Your task to perform on an android device: Do I have any events this weekend? Image 0: 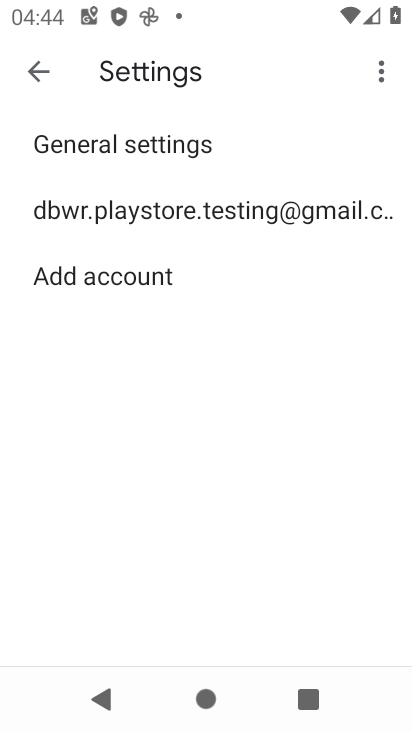
Step 0: press home button
Your task to perform on an android device: Do I have any events this weekend? Image 1: 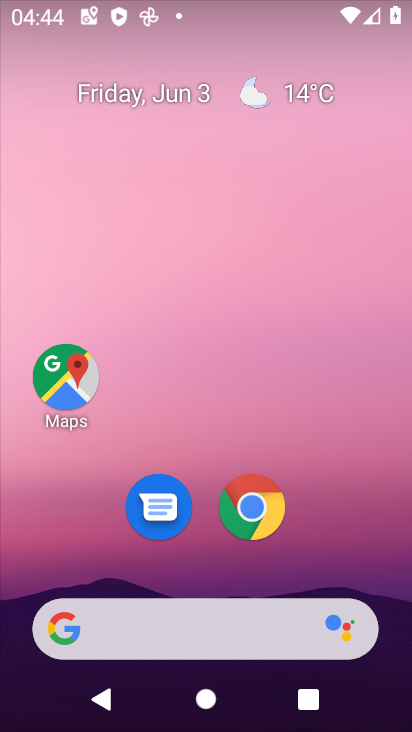
Step 1: drag from (342, 452) to (334, 122)
Your task to perform on an android device: Do I have any events this weekend? Image 2: 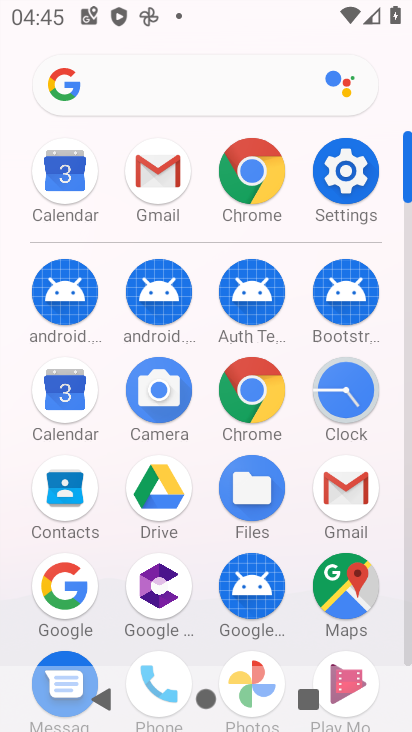
Step 2: click (63, 399)
Your task to perform on an android device: Do I have any events this weekend? Image 3: 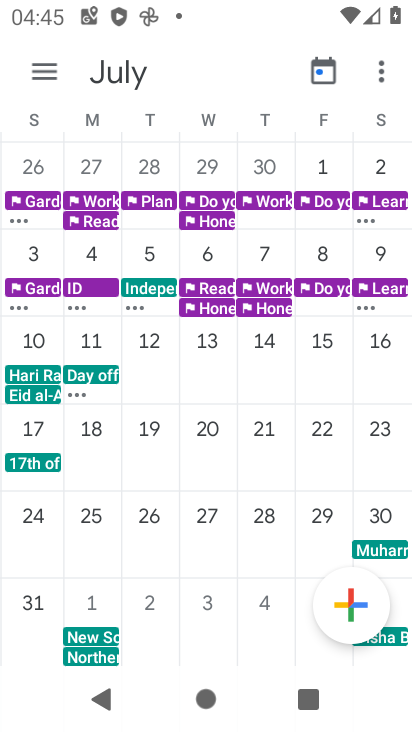
Step 3: drag from (35, 249) to (356, 249)
Your task to perform on an android device: Do I have any events this weekend? Image 4: 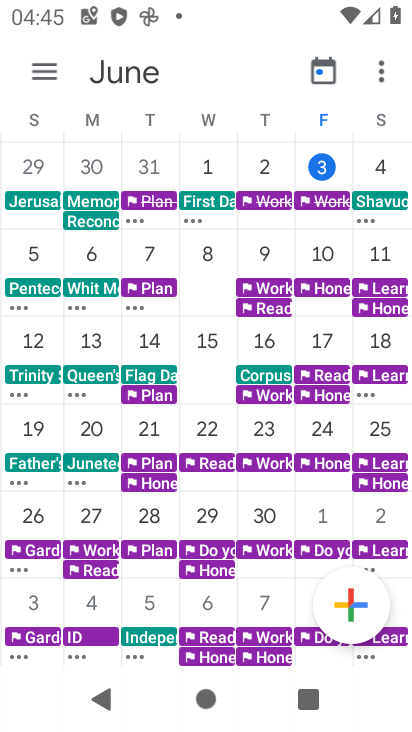
Step 4: click (46, 71)
Your task to perform on an android device: Do I have any events this weekend? Image 5: 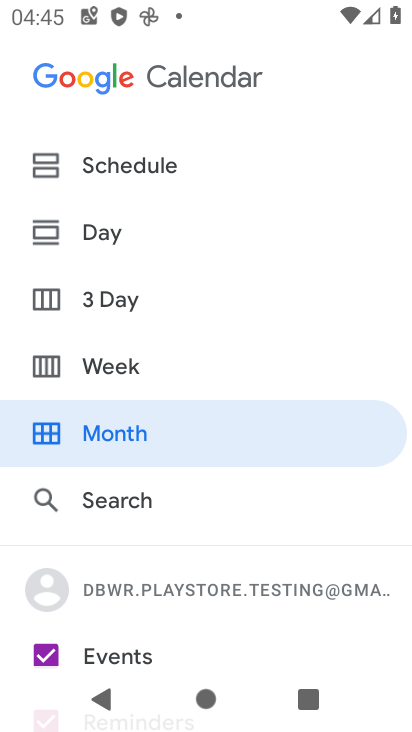
Step 5: drag from (220, 622) to (242, 543)
Your task to perform on an android device: Do I have any events this weekend? Image 6: 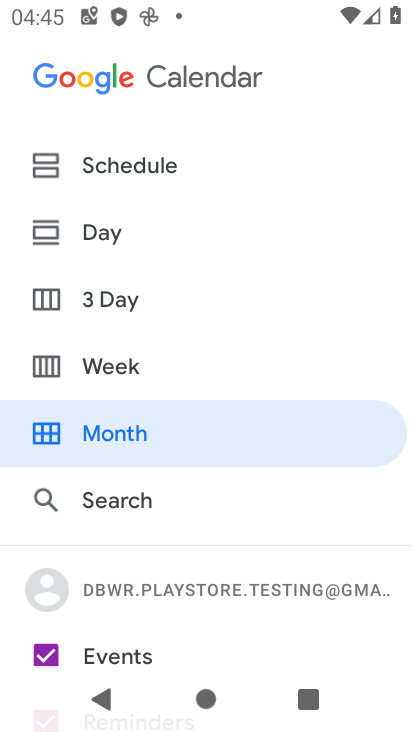
Step 6: click (179, 166)
Your task to perform on an android device: Do I have any events this weekend? Image 7: 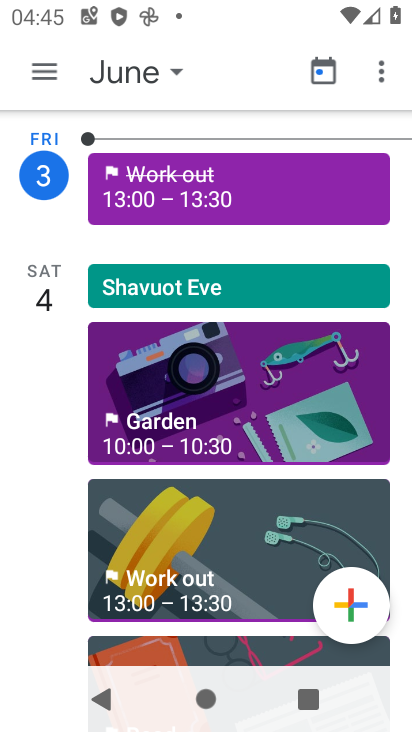
Step 7: task complete